Your task to perform on an android device: star an email in the gmail app Image 0: 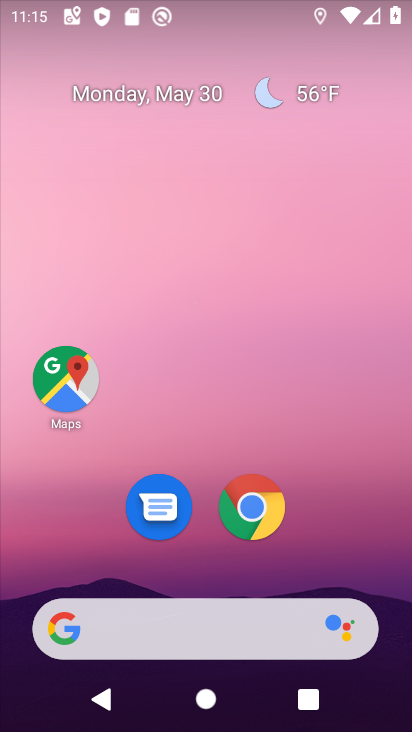
Step 0: drag from (164, 722) to (271, 87)
Your task to perform on an android device: star an email in the gmail app Image 1: 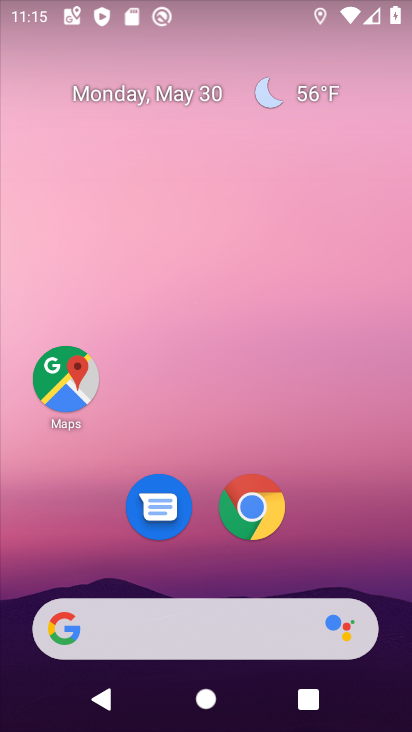
Step 1: drag from (158, 725) to (211, 99)
Your task to perform on an android device: star an email in the gmail app Image 2: 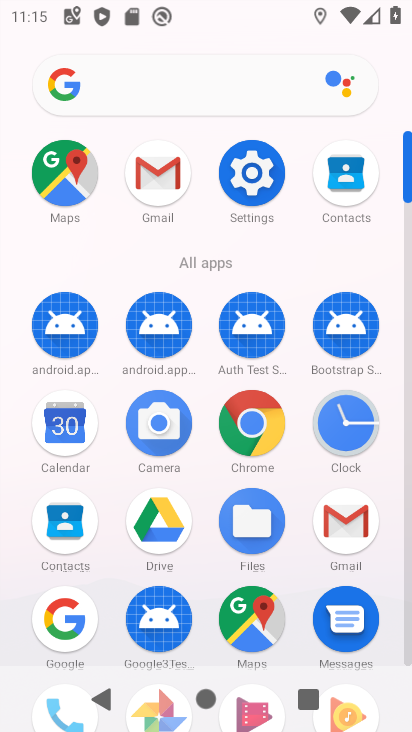
Step 2: click (159, 198)
Your task to perform on an android device: star an email in the gmail app Image 3: 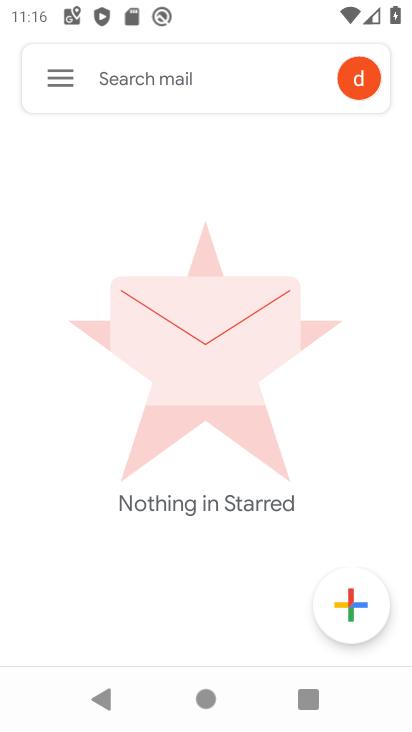
Step 3: click (62, 85)
Your task to perform on an android device: star an email in the gmail app Image 4: 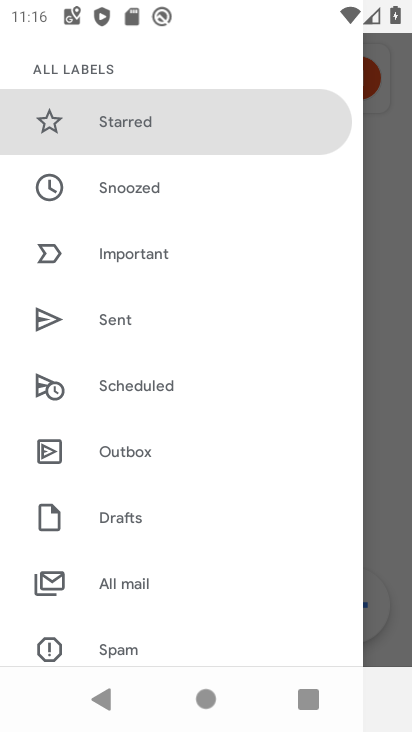
Step 4: drag from (204, 286) to (192, 644)
Your task to perform on an android device: star an email in the gmail app Image 5: 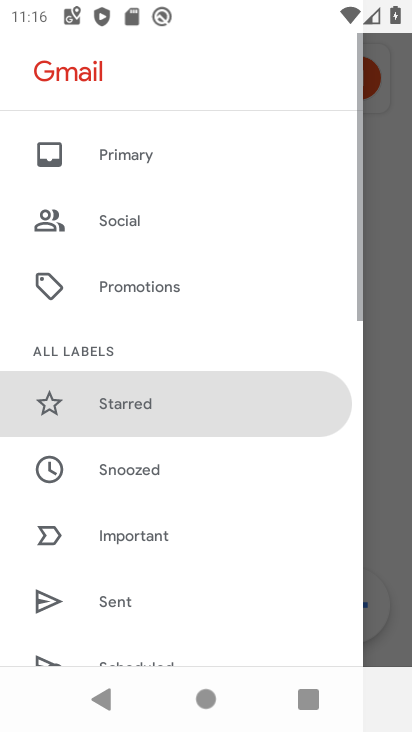
Step 5: click (153, 170)
Your task to perform on an android device: star an email in the gmail app Image 6: 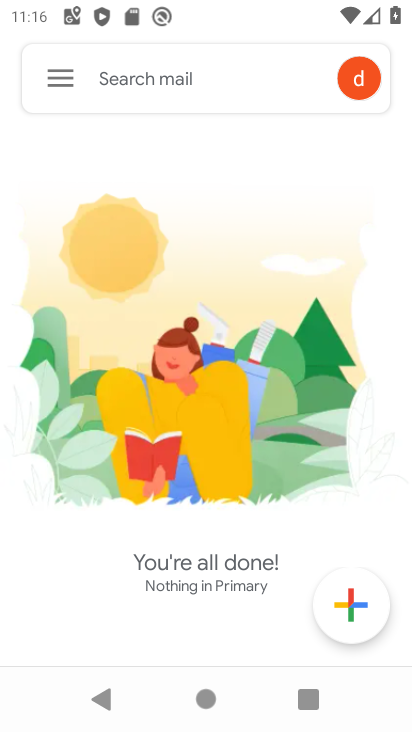
Step 6: click (58, 88)
Your task to perform on an android device: star an email in the gmail app Image 7: 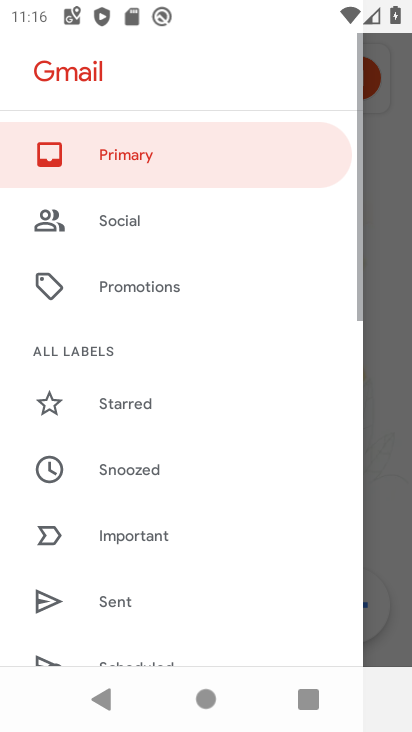
Step 7: drag from (202, 561) to (202, 214)
Your task to perform on an android device: star an email in the gmail app Image 8: 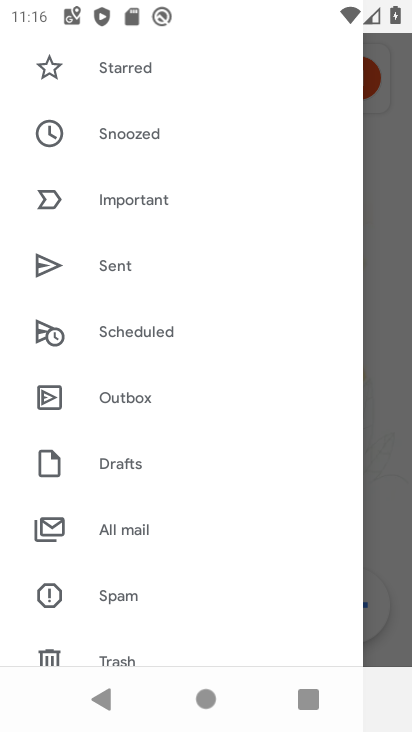
Step 8: click (151, 526)
Your task to perform on an android device: star an email in the gmail app Image 9: 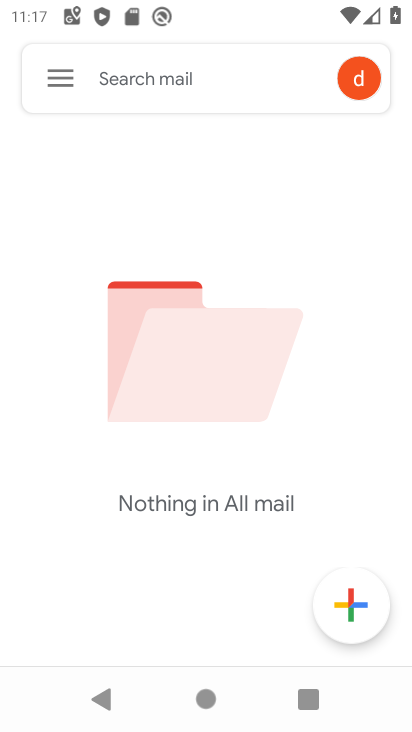
Step 9: task complete